Your task to perform on an android device: Find coffee shops on Maps Image 0: 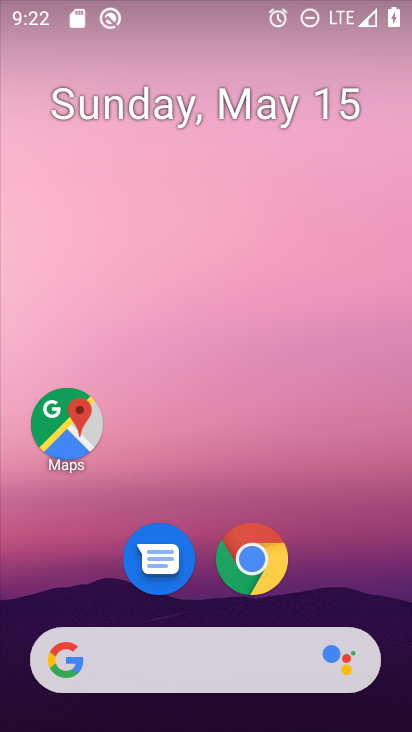
Step 0: click (91, 435)
Your task to perform on an android device: Find coffee shops on Maps Image 1: 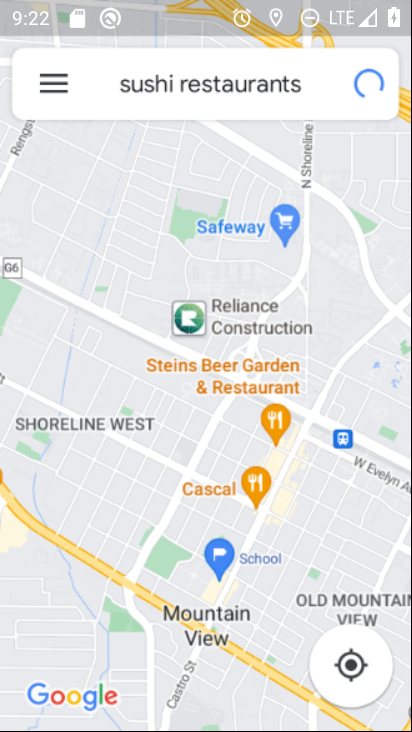
Step 1: click (128, 111)
Your task to perform on an android device: Find coffee shops on Maps Image 2: 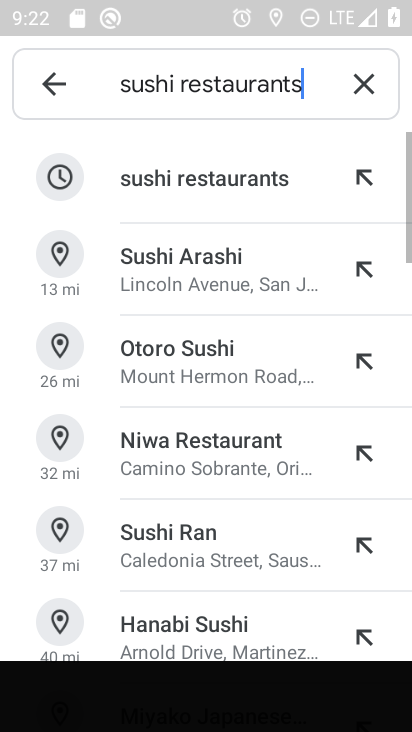
Step 2: click (284, 94)
Your task to perform on an android device: Find coffee shops on Maps Image 3: 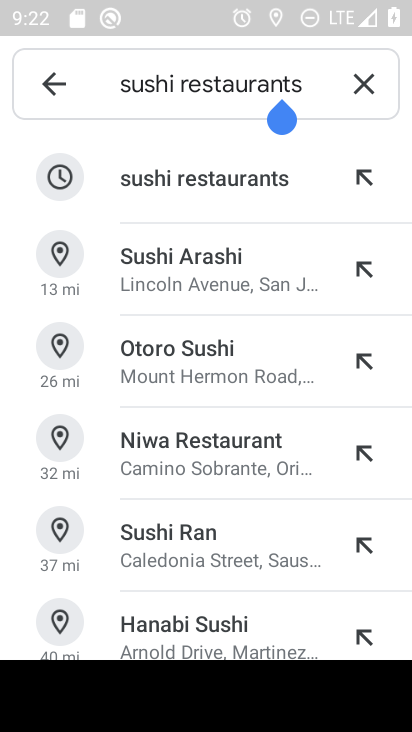
Step 3: click (346, 91)
Your task to perform on an android device: Find coffee shops on Maps Image 4: 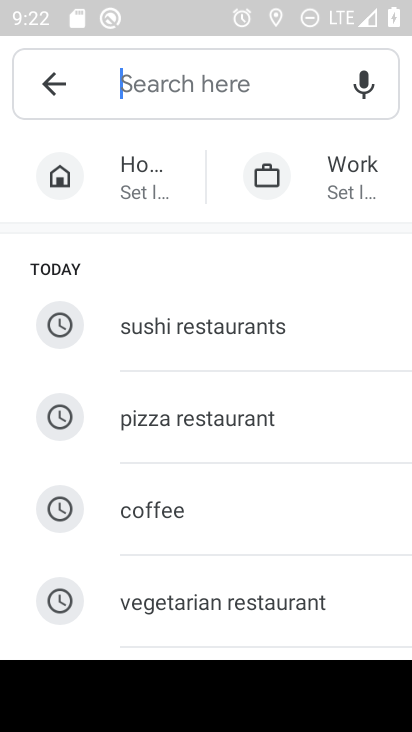
Step 4: click (168, 549)
Your task to perform on an android device: Find coffee shops on Maps Image 5: 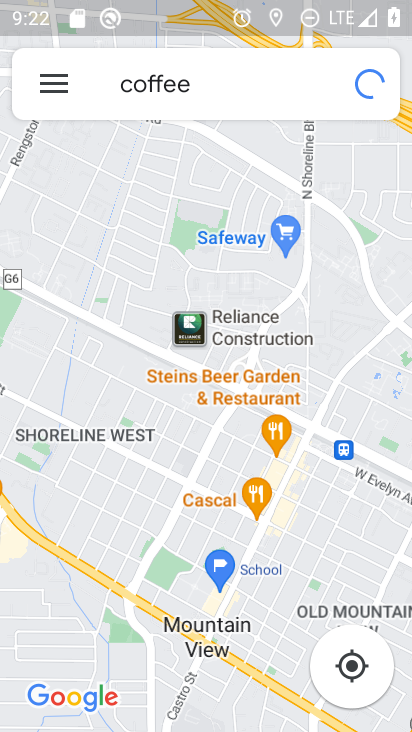
Step 5: task complete